Your task to perform on an android device: add a label to a message in the gmail app Image 0: 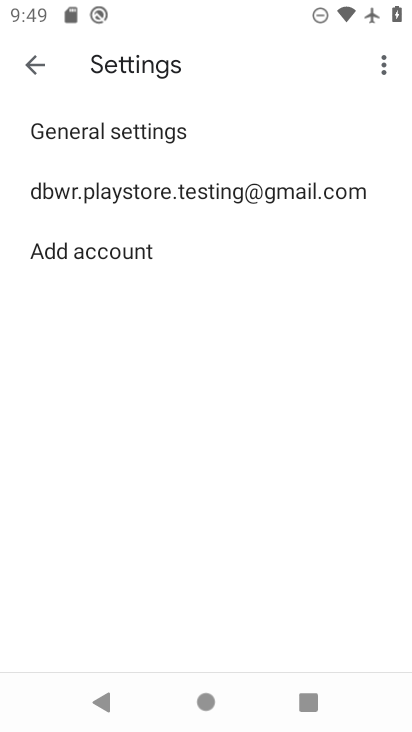
Step 0: press home button
Your task to perform on an android device: add a label to a message in the gmail app Image 1: 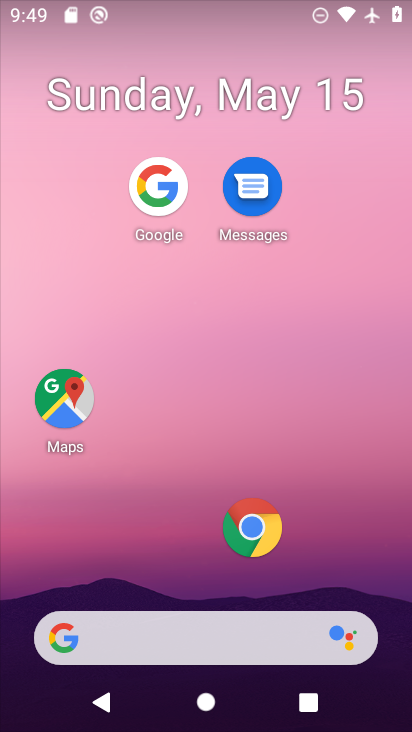
Step 1: drag from (168, 637) to (329, 278)
Your task to perform on an android device: add a label to a message in the gmail app Image 2: 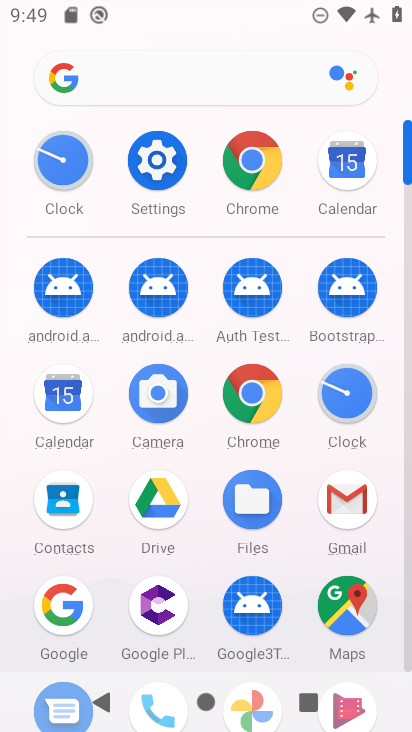
Step 2: click (358, 499)
Your task to perform on an android device: add a label to a message in the gmail app Image 3: 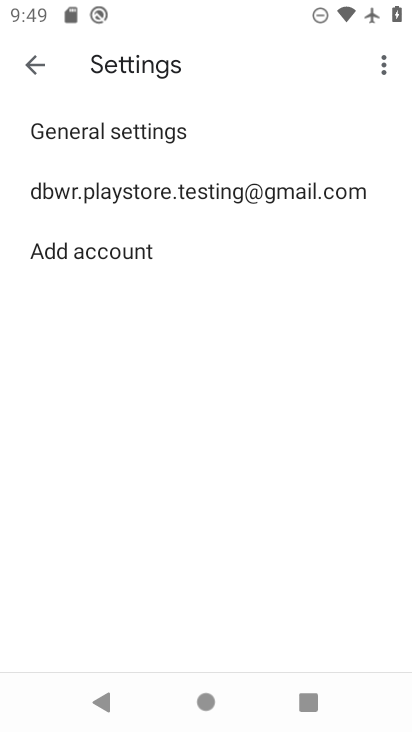
Step 3: click (29, 72)
Your task to perform on an android device: add a label to a message in the gmail app Image 4: 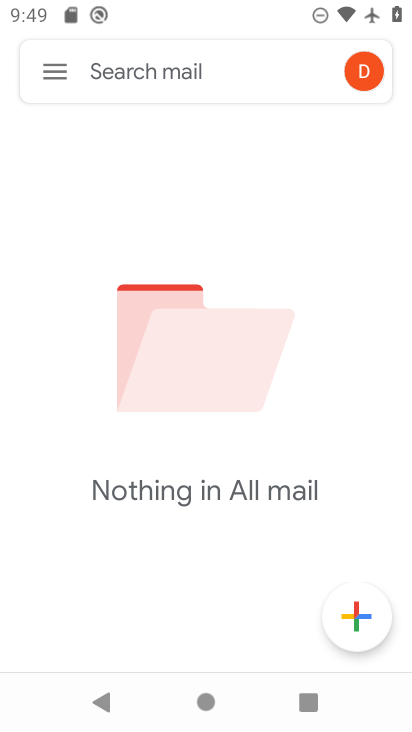
Step 4: task complete